Your task to perform on an android device: Go to battery settings Image 0: 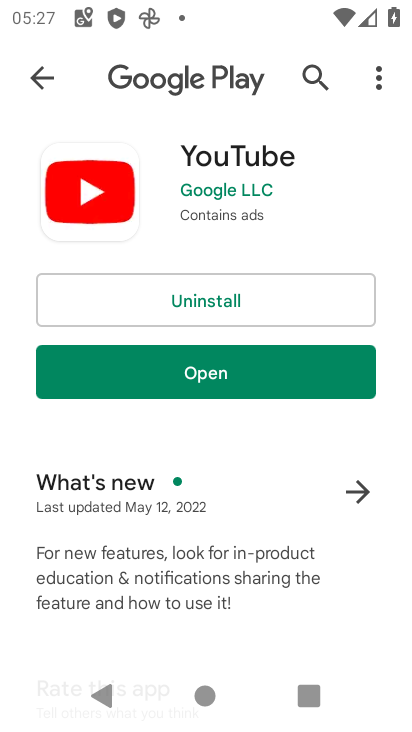
Step 0: press home button
Your task to perform on an android device: Go to battery settings Image 1: 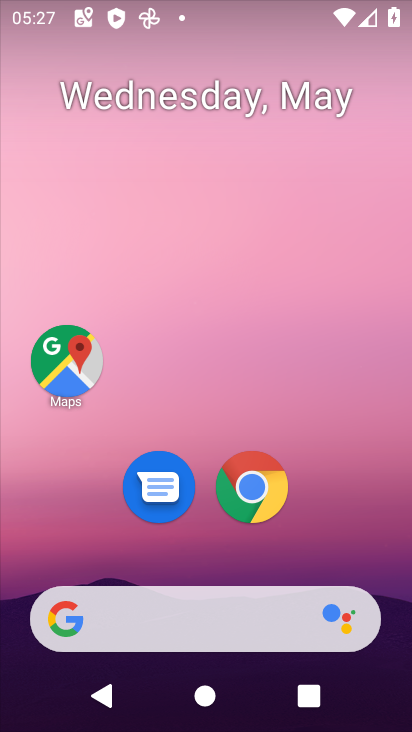
Step 1: drag from (374, 529) to (363, 247)
Your task to perform on an android device: Go to battery settings Image 2: 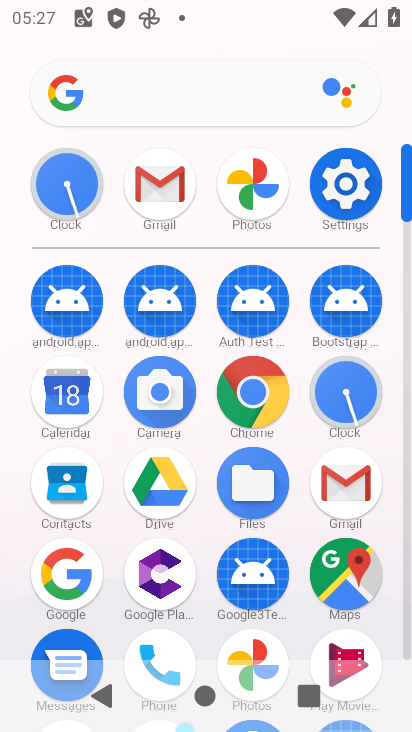
Step 2: click (332, 209)
Your task to perform on an android device: Go to battery settings Image 3: 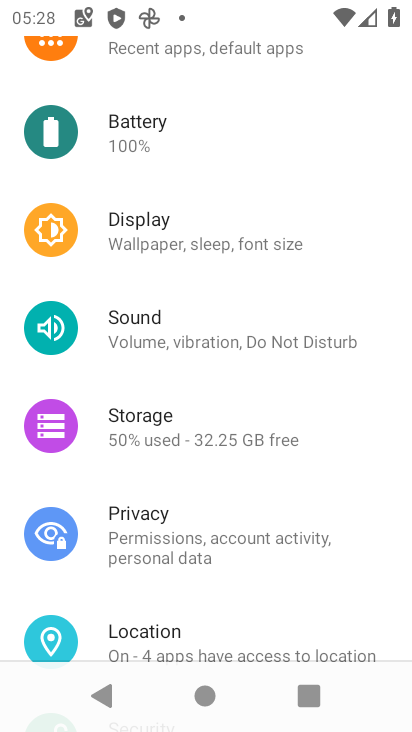
Step 3: click (243, 156)
Your task to perform on an android device: Go to battery settings Image 4: 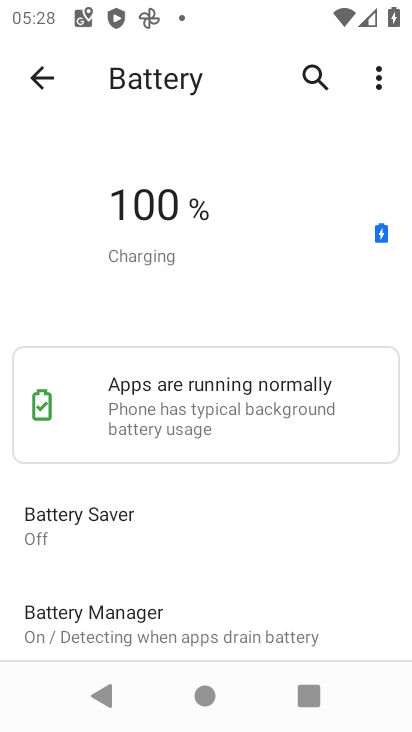
Step 4: task complete